Your task to perform on an android device: delete browsing data in the chrome app Image 0: 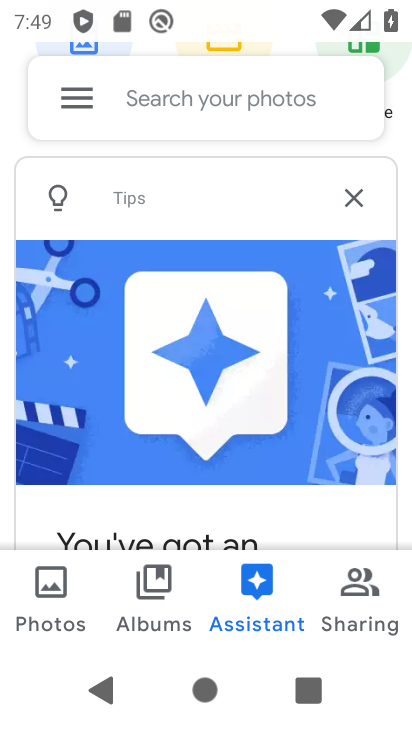
Step 0: press home button
Your task to perform on an android device: delete browsing data in the chrome app Image 1: 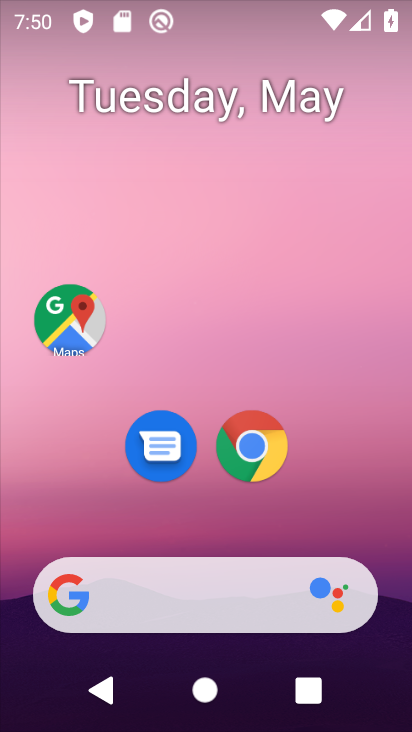
Step 1: click (248, 454)
Your task to perform on an android device: delete browsing data in the chrome app Image 2: 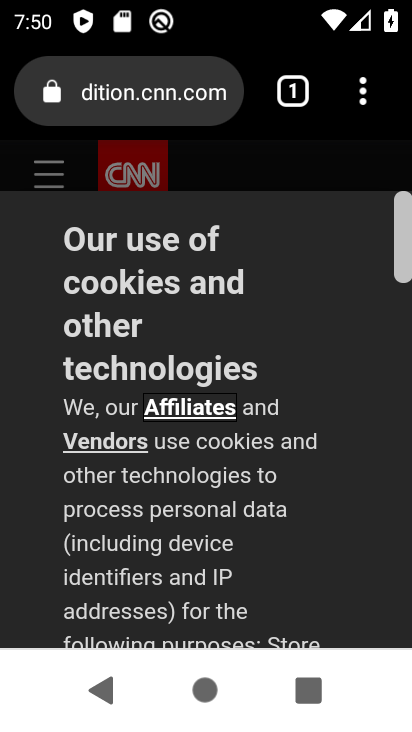
Step 2: click (363, 96)
Your task to perform on an android device: delete browsing data in the chrome app Image 3: 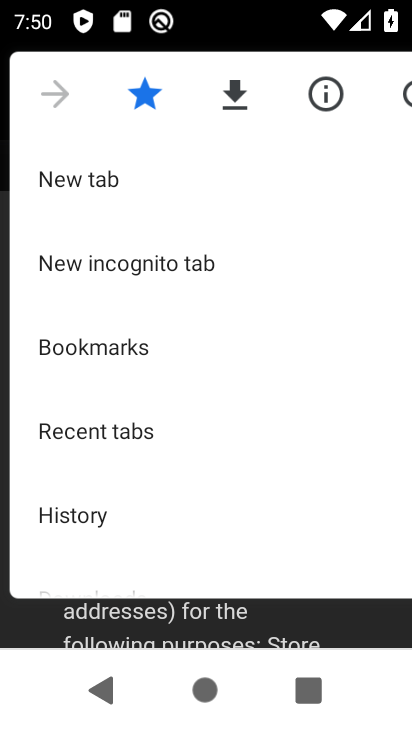
Step 3: drag from (209, 507) to (254, 216)
Your task to perform on an android device: delete browsing data in the chrome app Image 4: 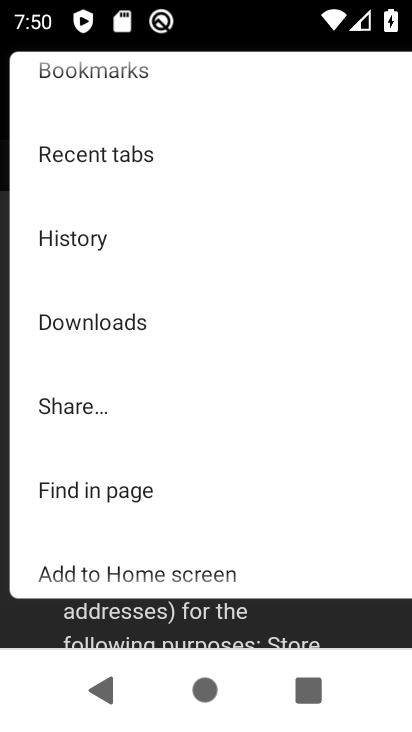
Step 4: drag from (237, 501) to (272, 219)
Your task to perform on an android device: delete browsing data in the chrome app Image 5: 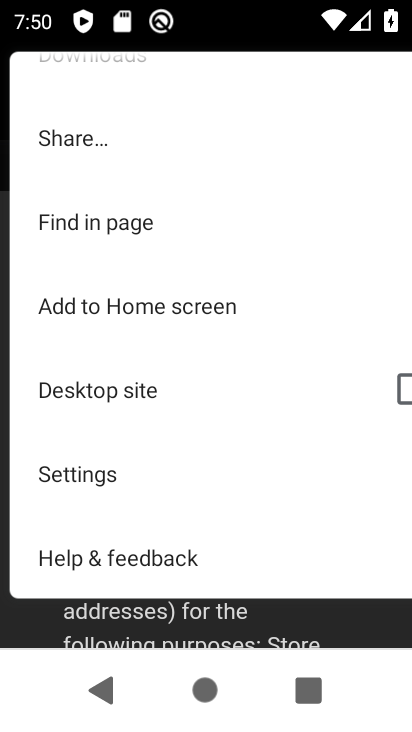
Step 5: drag from (204, 496) to (238, 292)
Your task to perform on an android device: delete browsing data in the chrome app Image 6: 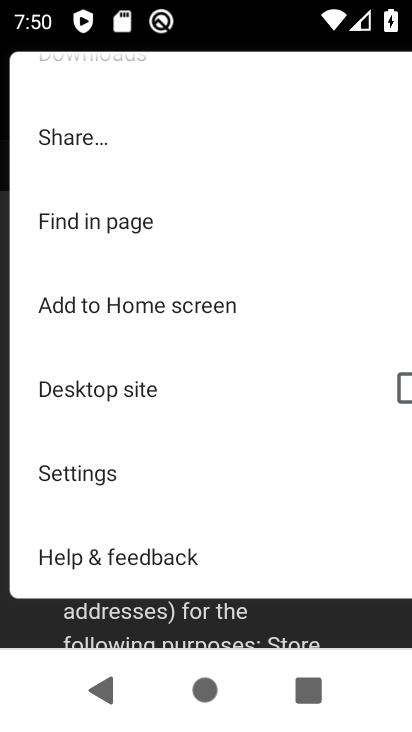
Step 6: click (69, 473)
Your task to perform on an android device: delete browsing data in the chrome app Image 7: 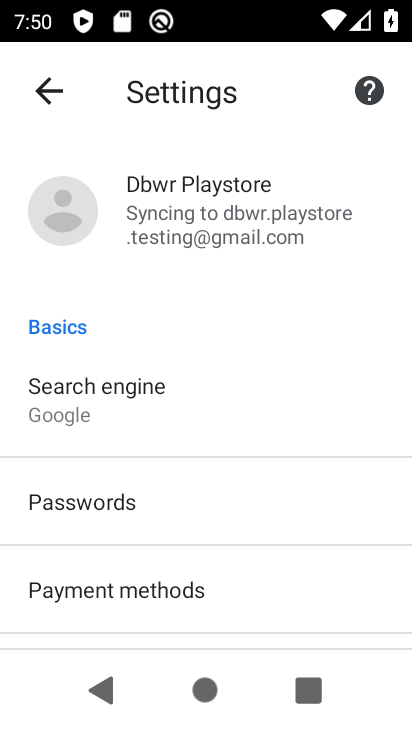
Step 7: drag from (245, 563) to (244, 104)
Your task to perform on an android device: delete browsing data in the chrome app Image 8: 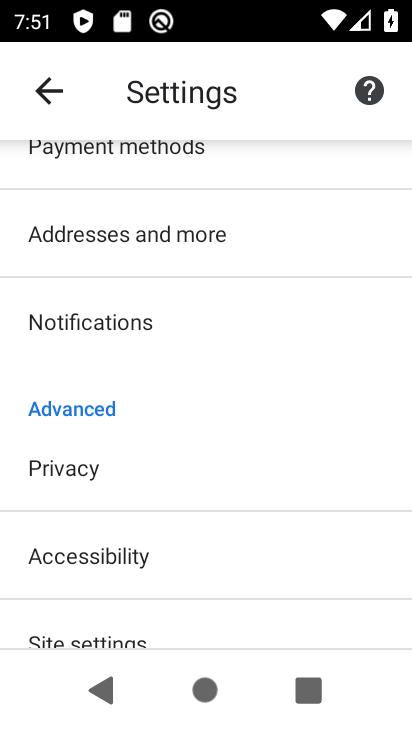
Step 8: click (63, 459)
Your task to perform on an android device: delete browsing data in the chrome app Image 9: 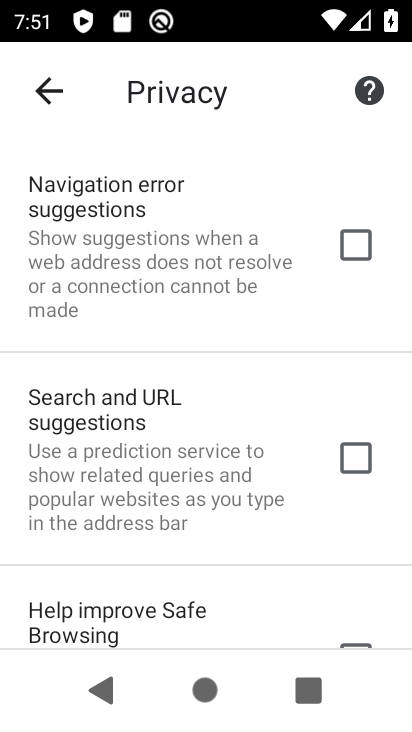
Step 9: drag from (138, 560) to (154, 134)
Your task to perform on an android device: delete browsing data in the chrome app Image 10: 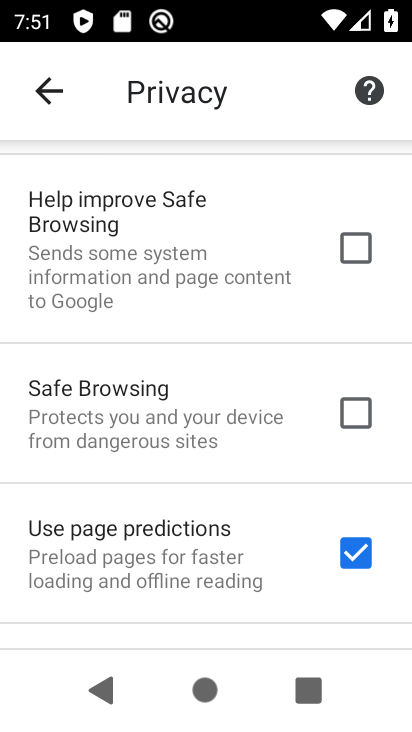
Step 10: drag from (148, 522) to (154, 180)
Your task to perform on an android device: delete browsing data in the chrome app Image 11: 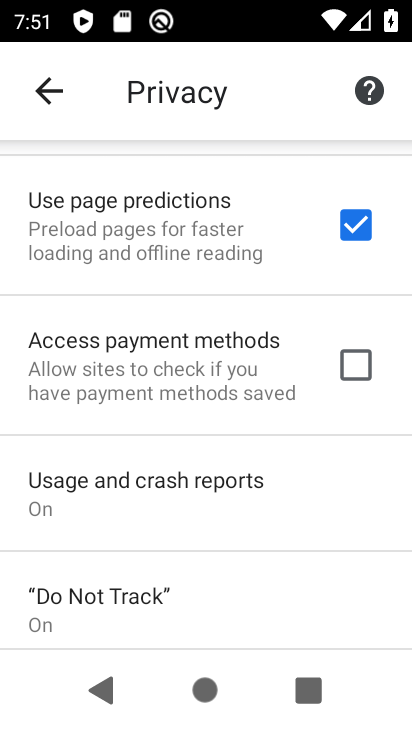
Step 11: drag from (143, 542) to (143, 232)
Your task to perform on an android device: delete browsing data in the chrome app Image 12: 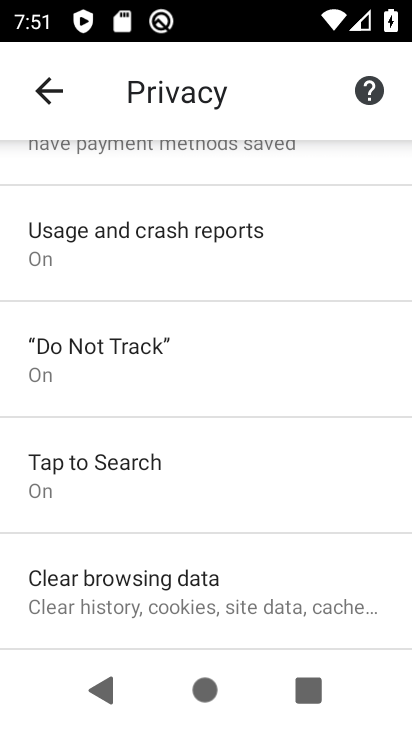
Step 12: drag from (146, 541) to (157, 263)
Your task to perform on an android device: delete browsing data in the chrome app Image 13: 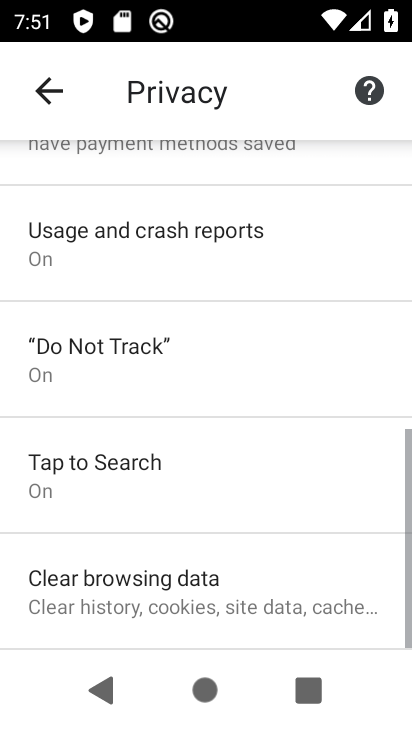
Step 13: click (143, 590)
Your task to perform on an android device: delete browsing data in the chrome app Image 14: 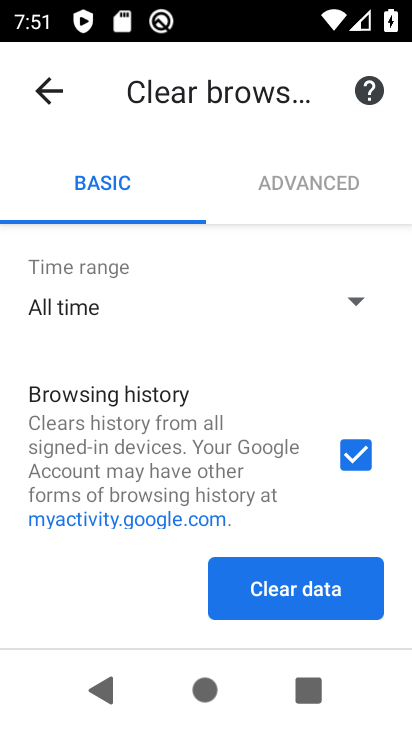
Step 14: drag from (127, 529) to (162, 220)
Your task to perform on an android device: delete browsing data in the chrome app Image 15: 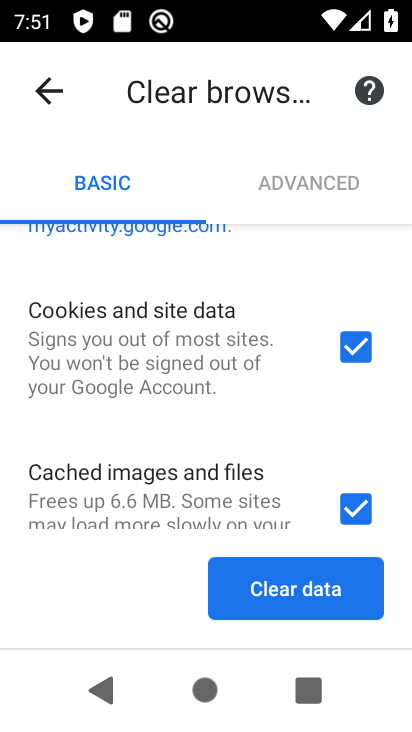
Step 15: click (350, 356)
Your task to perform on an android device: delete browsing data in the chrome app Image 16: 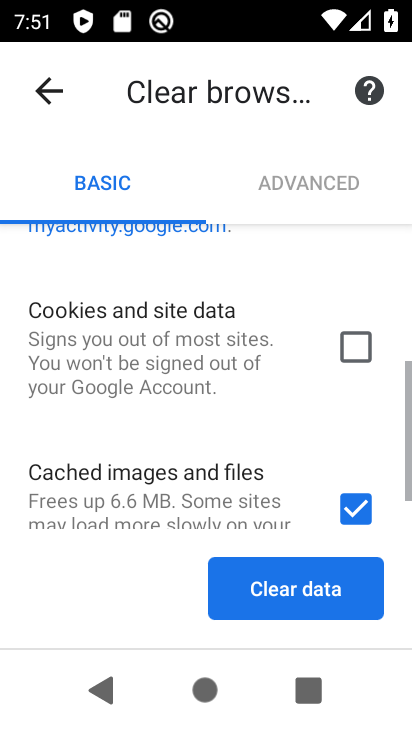
Step 16: click (358, 512)
Your task to perform on an android device: delete browsing data in the chrome app Image 17: 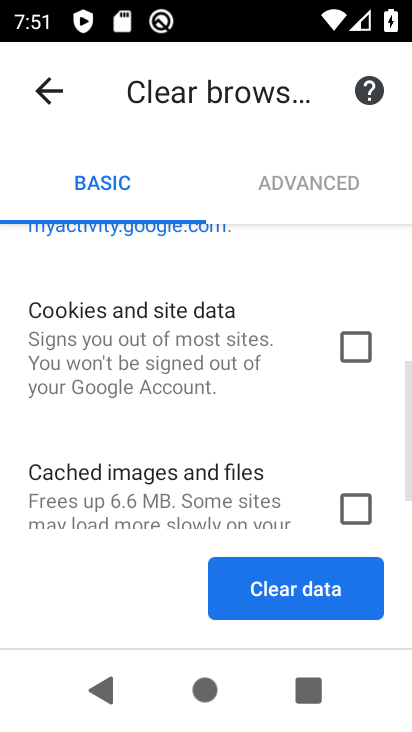
Step 17: drag from (133, 333) to (122, 612)
Your task to perform on an android device: delete browsing data in the chrome app Image 18: 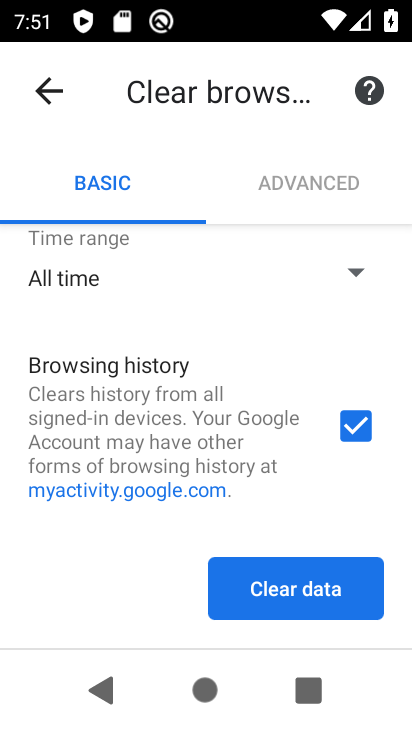
Step 18: drag from (120, 487) to (151, 194)
Your task to perform on an android device: delete browsing data in the chrome app Image 19: 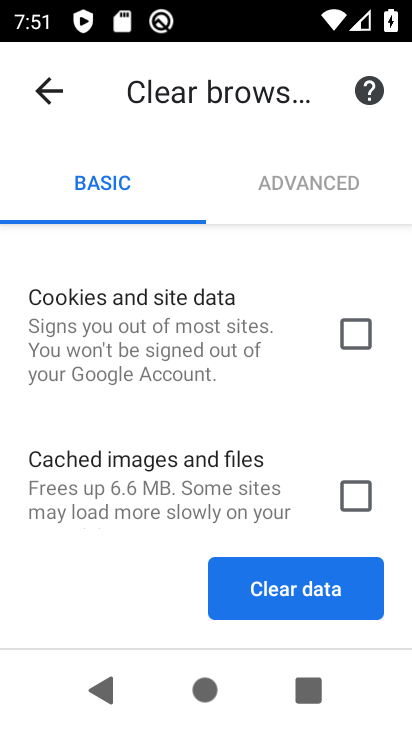
Step 19: drag from (116, 528) to (160, 309)
Your task to perform on an android device: delete browsing data in the chrome app Image 20: 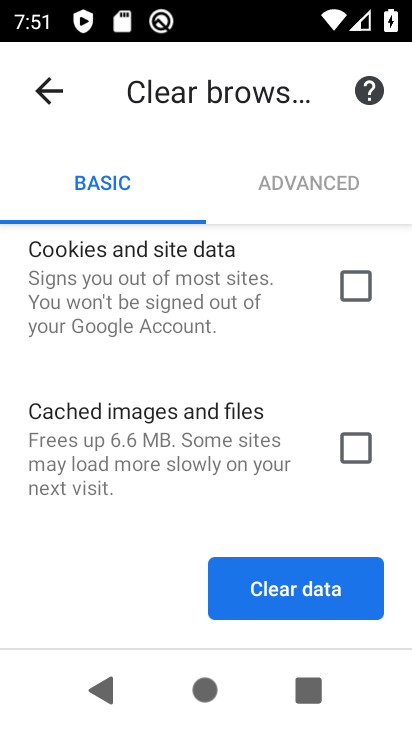
Step 20: click (281, 582)
Your task to perform on an android device: delete browsing data in the chrome app Image 21: 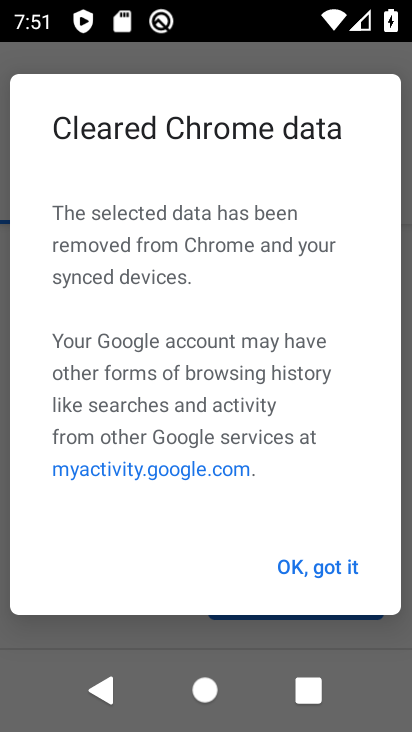
Step 21: click (306, 558)
Your task to perform on an android device: delete browsing data in the chrome app Image 22: 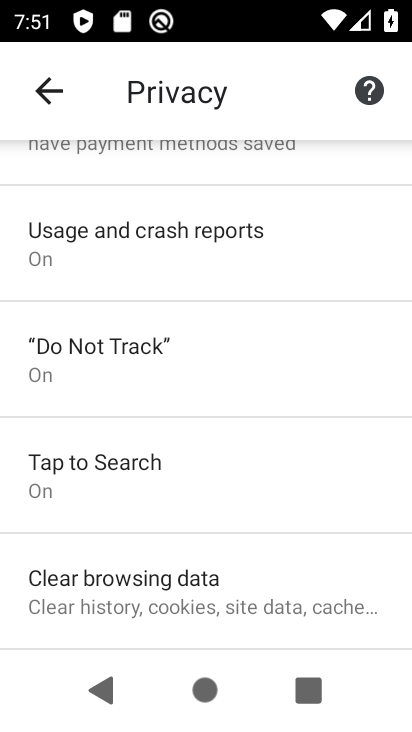
Step 22: task complete